Your task to perform on an android device: change text size in settings app Image 0: 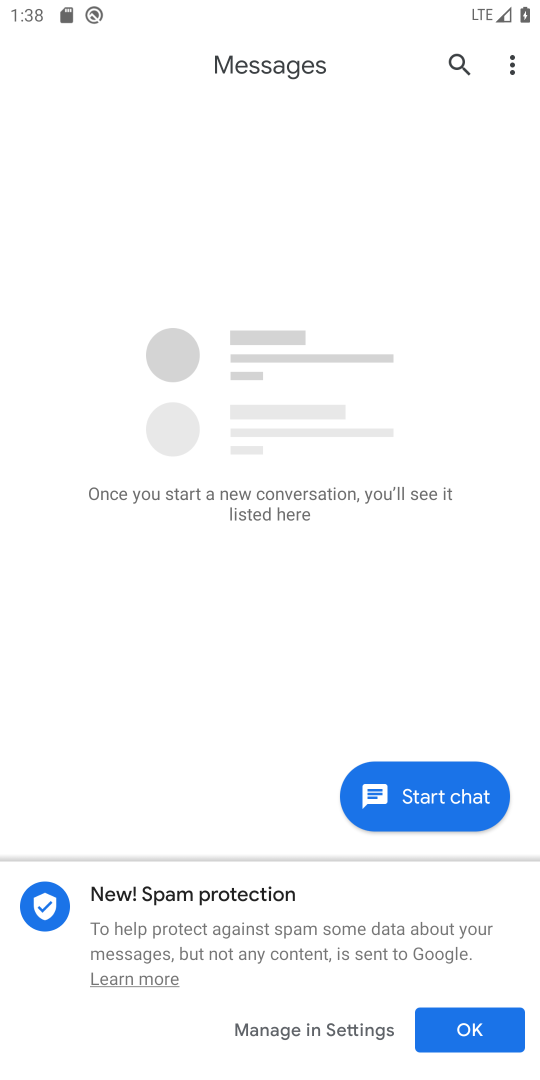
Step 0: press home button
Your task to perform on an android device: change text size in settings app Image 1: 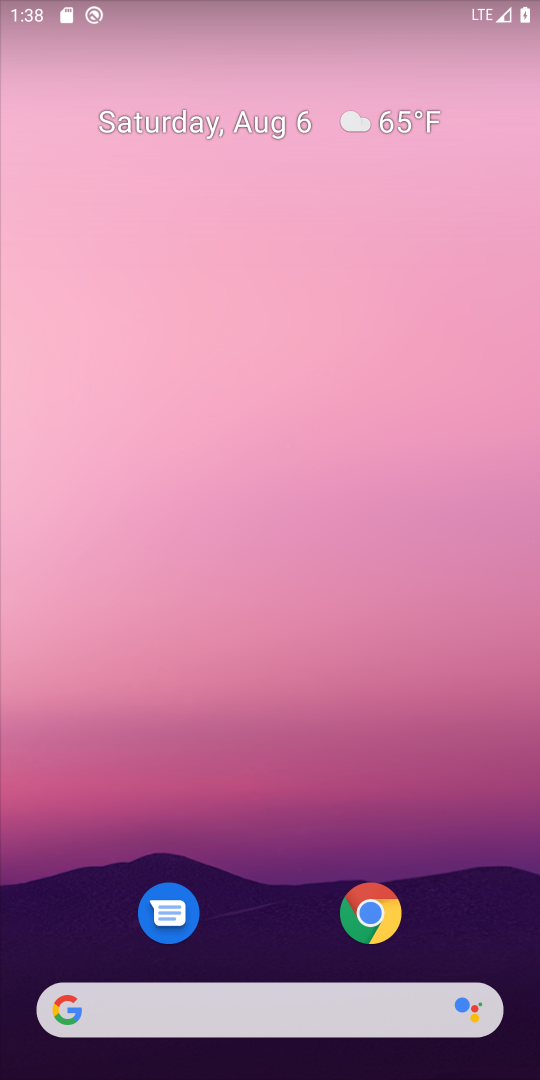
Step 1: drag from (273, 934) to (331, 318)
Your task to perform on an android device: change text size in settings app Image 2: 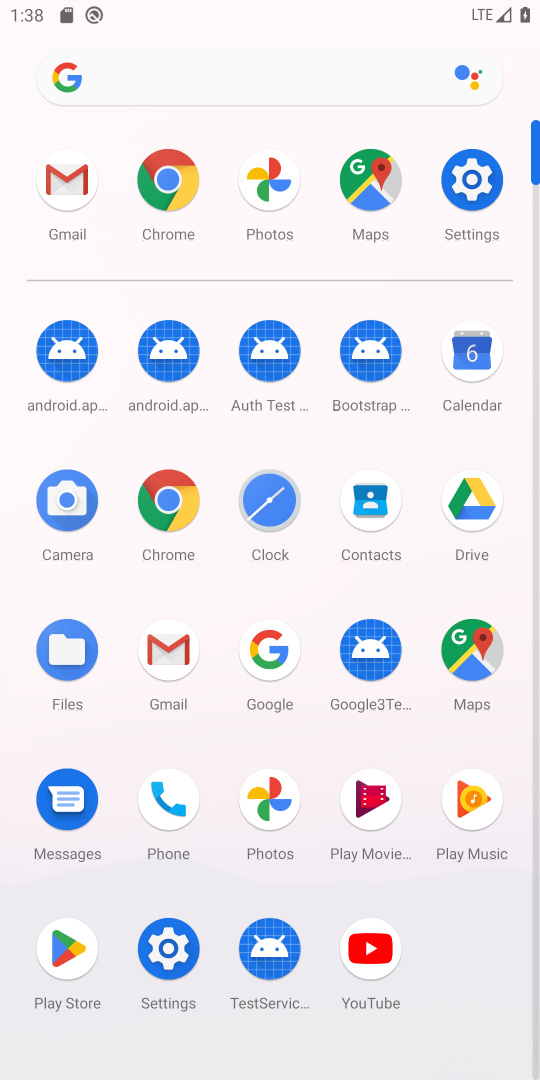
Step 2: click (163, 959)
Your task to perform on an android device: change text size in settings app Image 3: 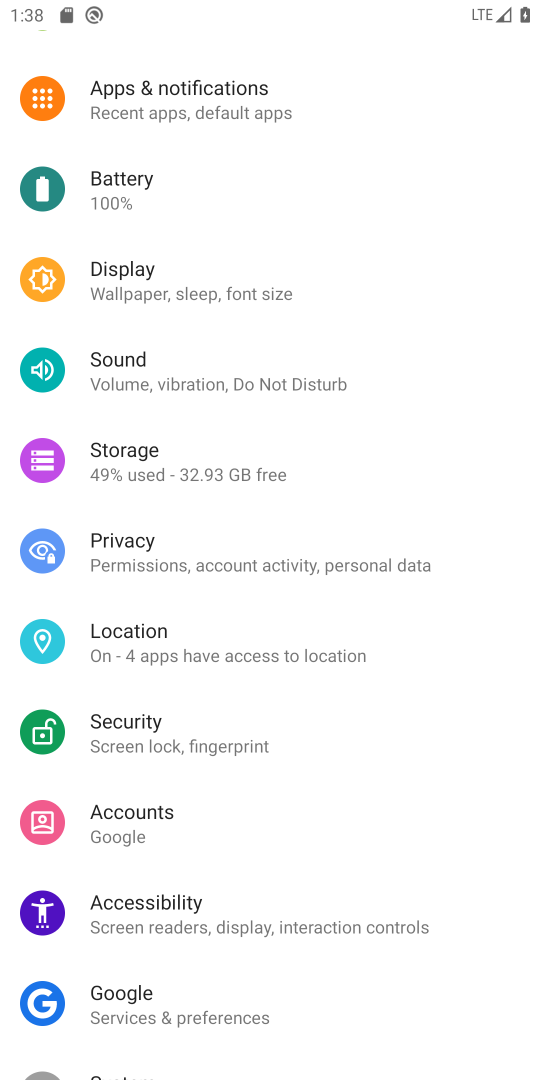
Step 3: drag from (437, 818) to (466, 613)
Your task to perform on an android device: change text size in settings app Image 4: 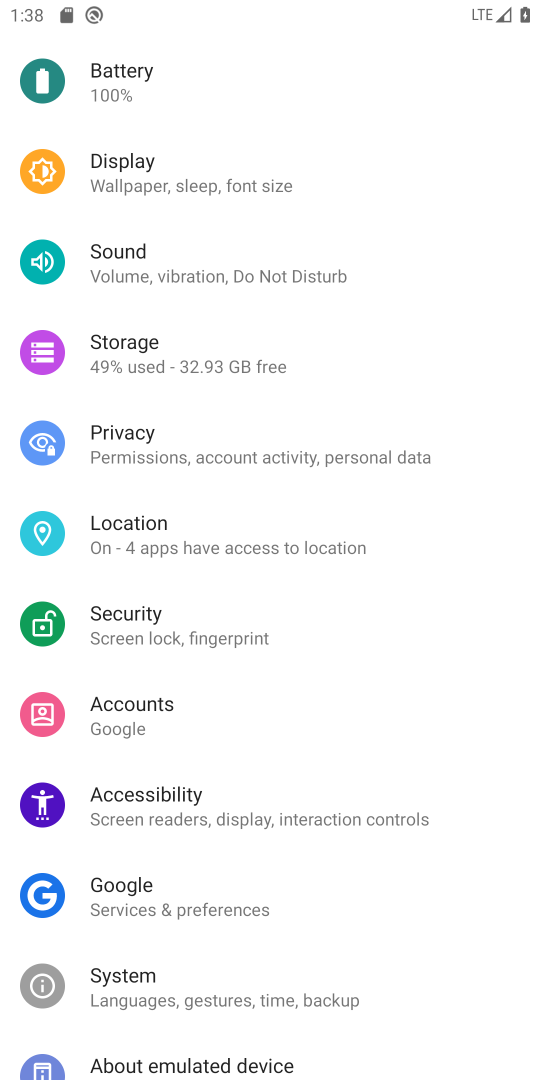
Step 4: drag from (427, 896) to (451, 648)
Your task to perform on an android device: change text size in settings app Image 5: 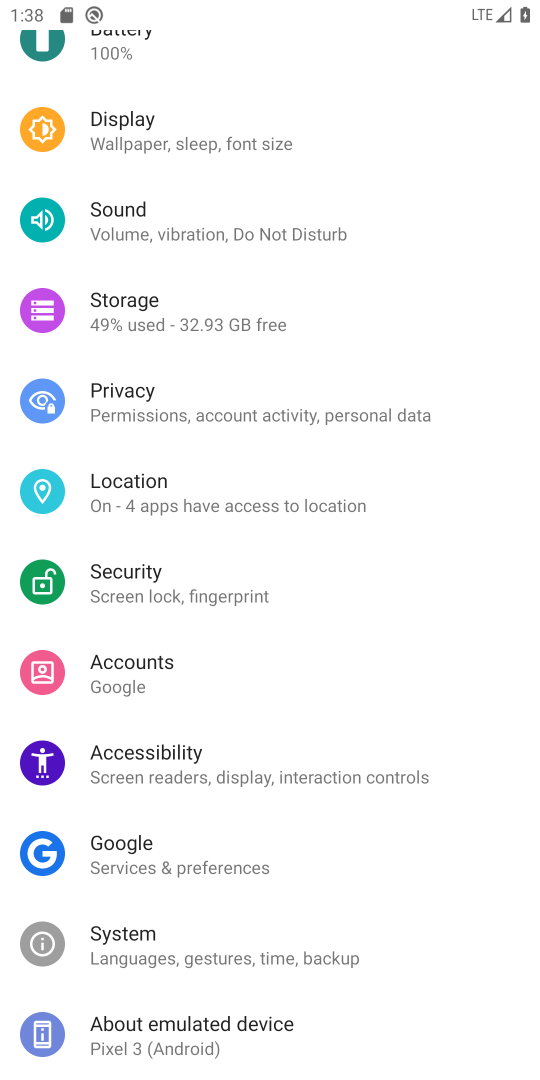
Step 5: drag from (452, 510) to (443, 704)
Your task to perform on an android device: change text size in settings app Image 6: 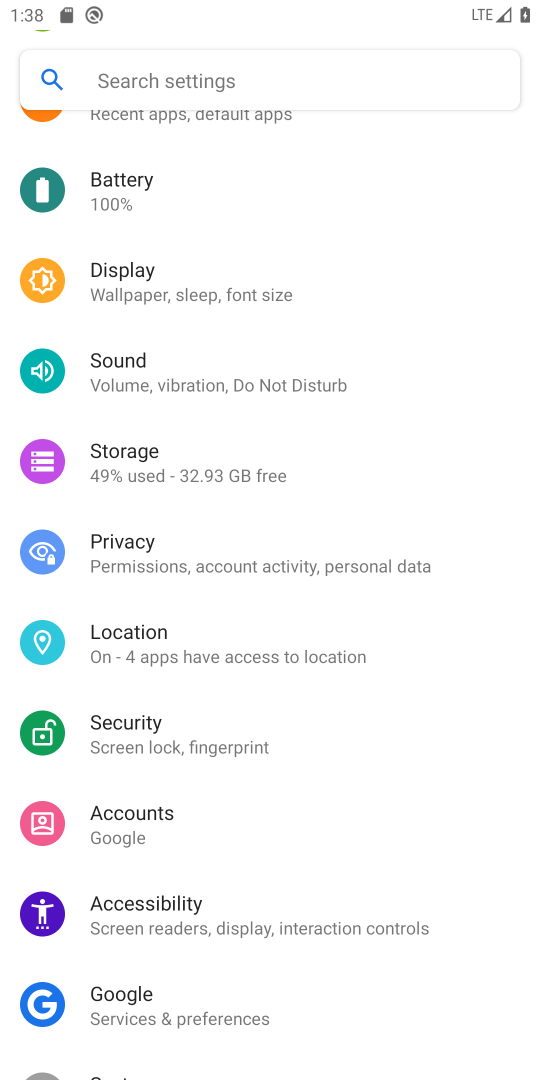
Step 6: drag from (443, 391) to (447, 692)
Your task to perform on an android device: change text size in settings app Image 7: 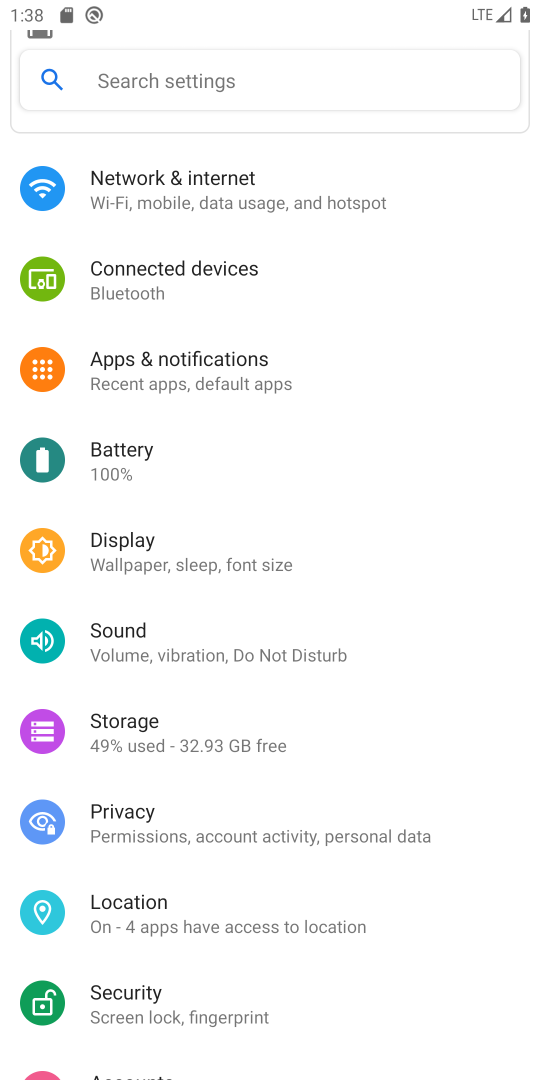
Step 7: drag from (421, 362) to (436, 679)
Your task to perform on an android device: change text size in settings app Image 8: 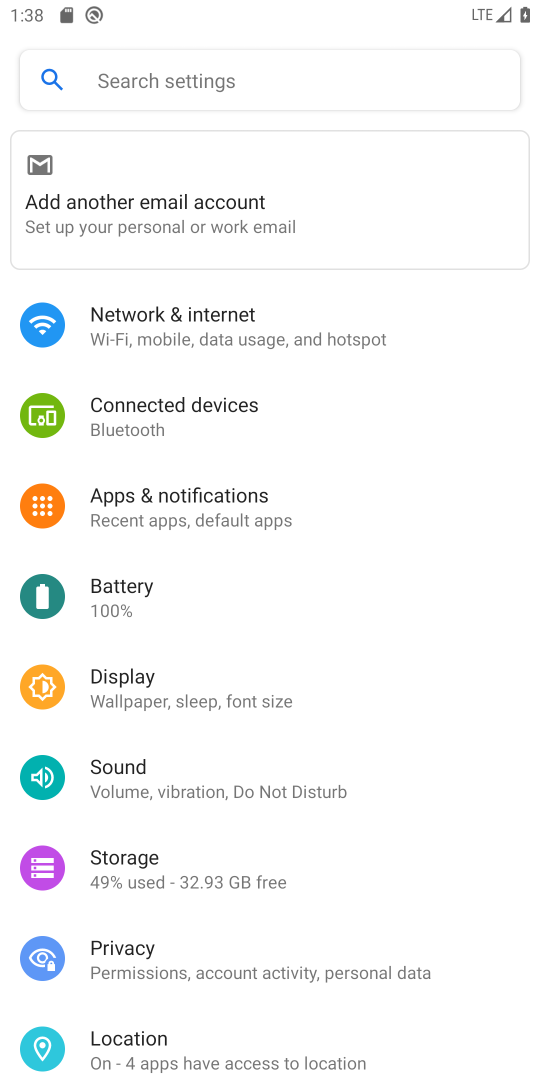
Step 8: click (268, 697)
Your task to perform on an android device: change text size in settings app Image 9: 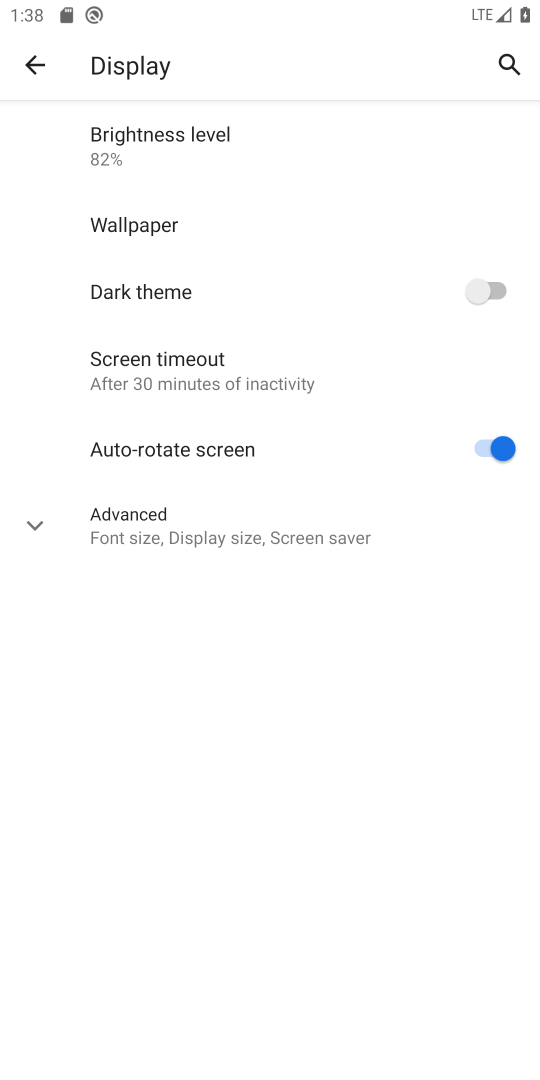
Step 9: click (267, 522)
Your task to perform on an android device: change text size in settings app Image 10: 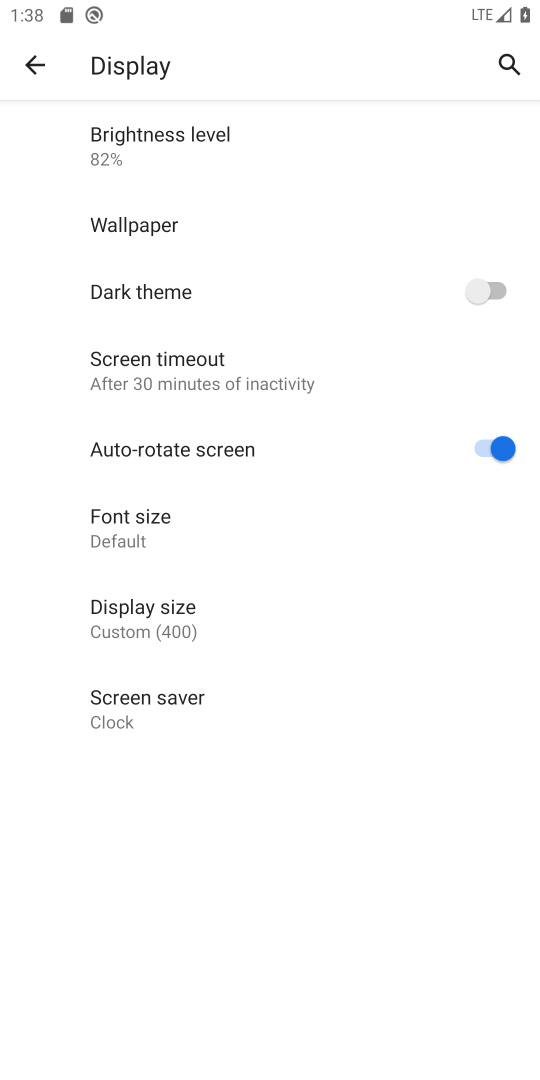
Step 10: click (128, 514)
Your task to perform on an android device: change text size in settings app Image 11: 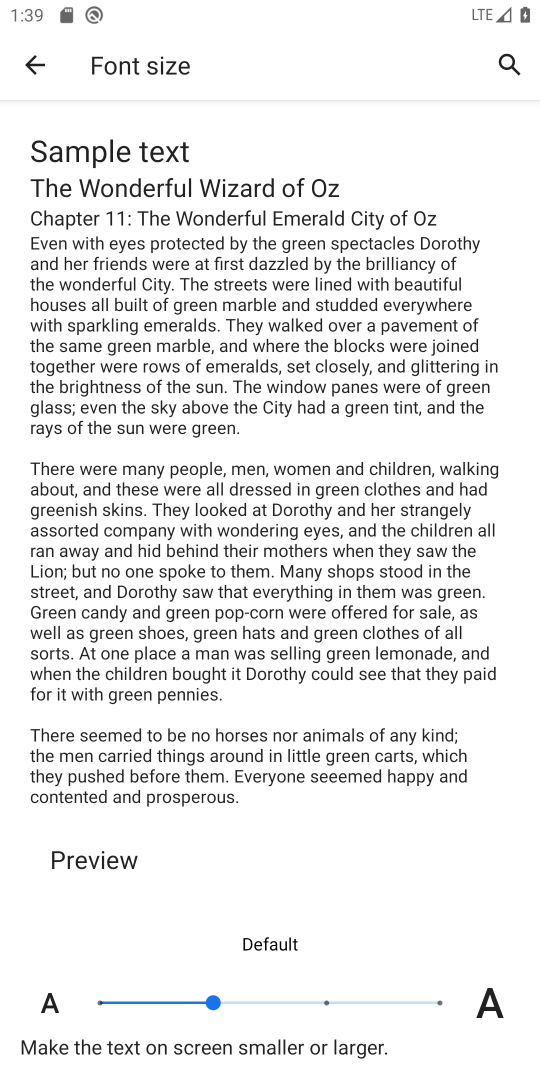
Step 11: click (437, 1004)
Your task to perform on an android device: change text size in settings app Image 12: 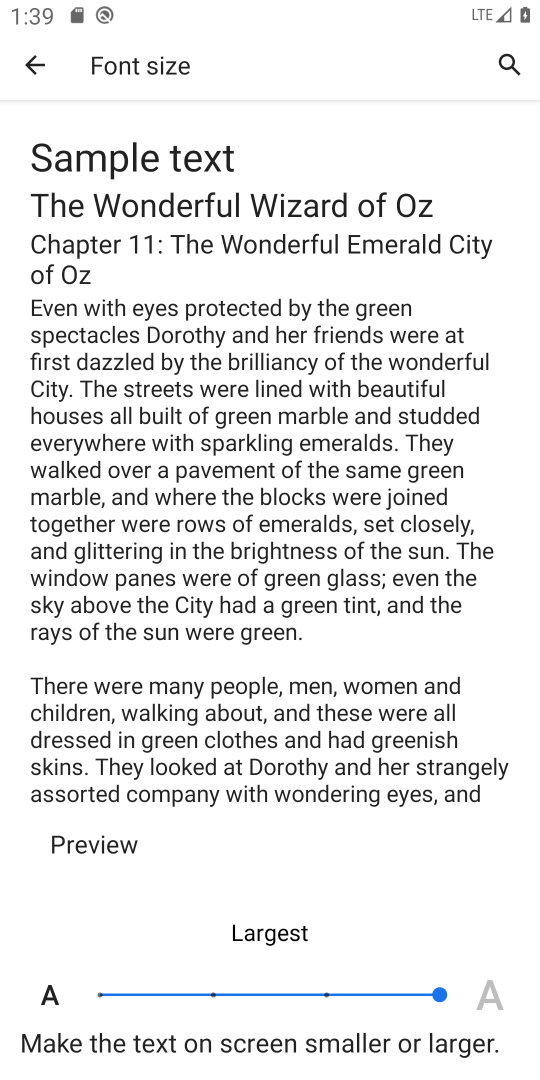
Step 12: task complete